Your task to perform on an android device: Open the Play Movies app and select the watchlist tab. Image 0: 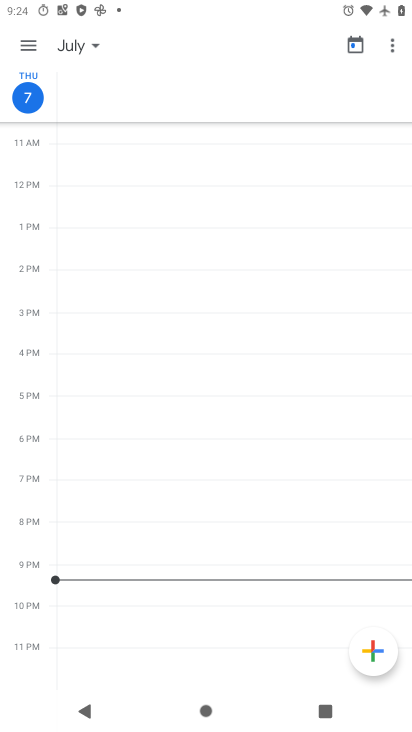
Step 0: press home button
Your task to perform on an android device: Open the Play Movies app and select the watchlist tab. Image 1: 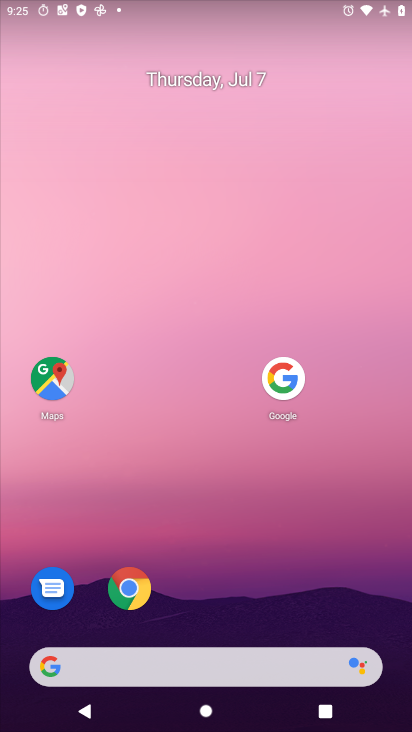
Step 1: drag from (159, 654) to (219, 108)
Your task to perform on an android device: Open the Play Movies app and select the watchlist tab. Image 2: 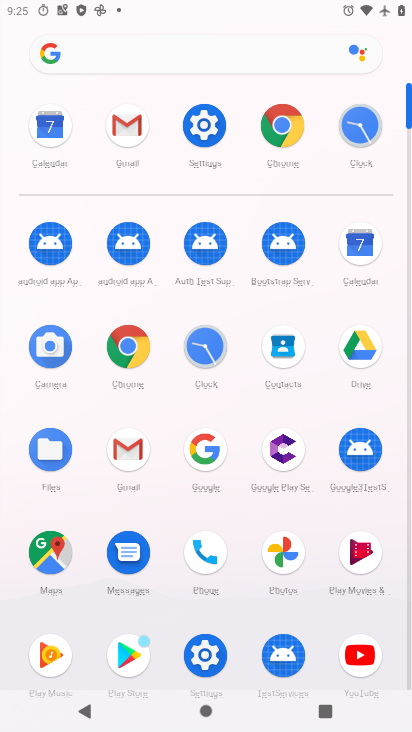
Step 2: click (353, 556)
Your task to perform on an android device: Open the Play Movies app and select the watchlist tab. Image 3: 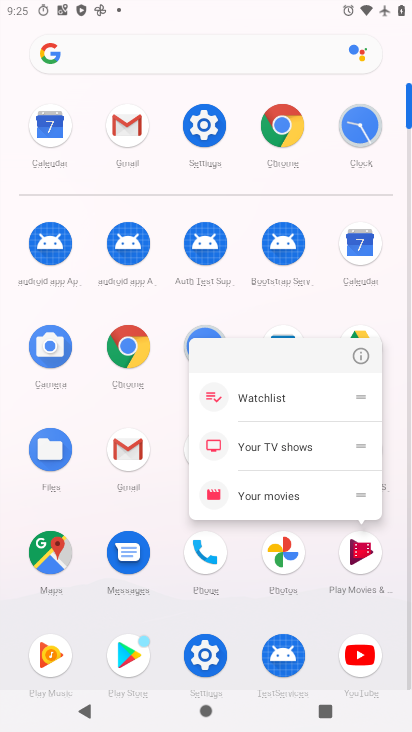
Step 3: click (355, 555)
Your task to perform on an android device: Open the Play Movies app and select the watchlist tab. Image 4: 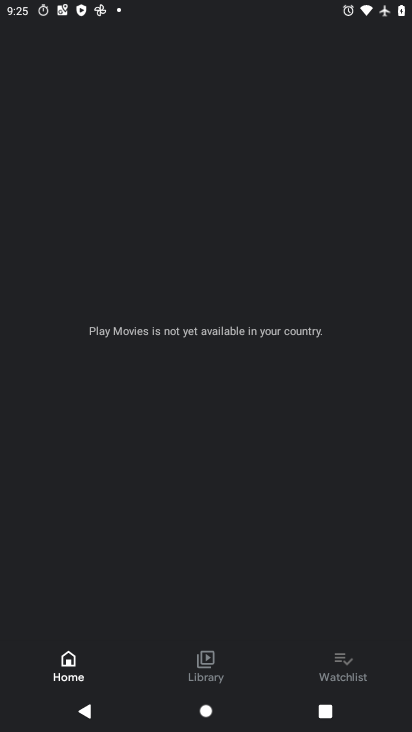
Step 4: click (351, 675)
Your task to perform on an android device: Open the Play Movies app and select the watchlist tab. Image 5: 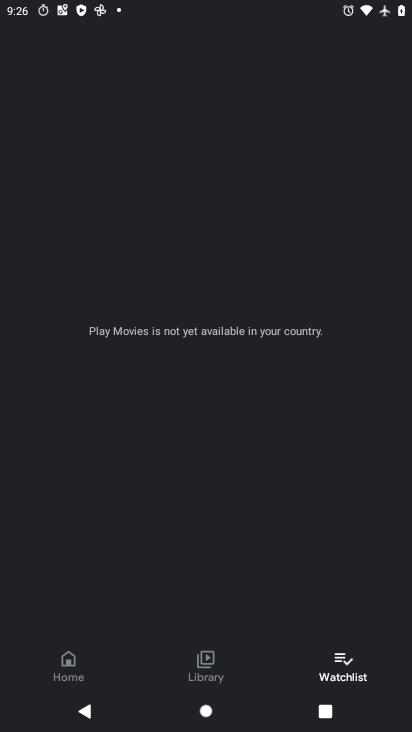
Step 5: task complete